Your task to perform on an android device: Show me popular games on the Play Store Image 0: 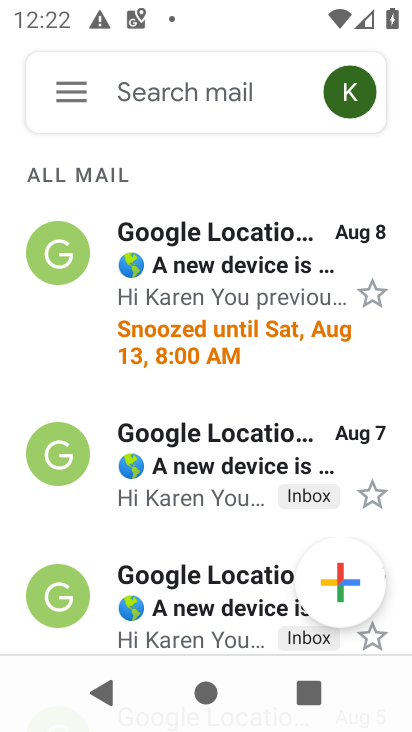
Step 0: press home button
Your task to perform on an android device: Show me popular games on the Play Store Image 1: 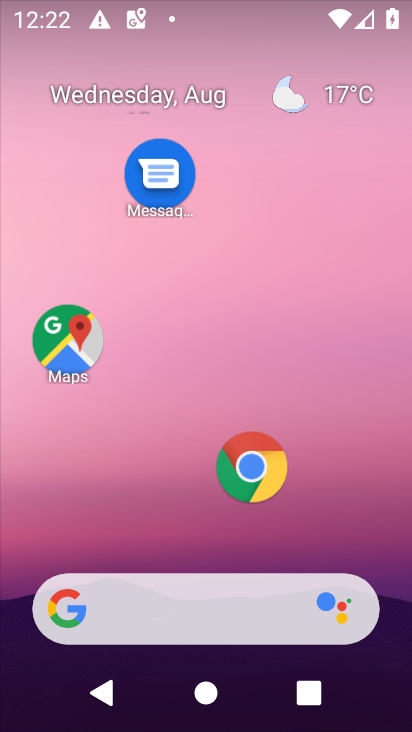
Step 1: drag from (203, 543) to (99, 26)
Your task to perform on an android device: Show me popular games on the Play Store Image 2: 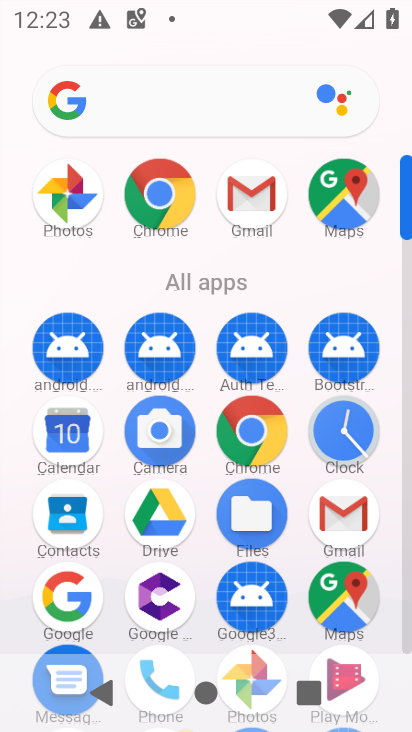
Step 2: drag from (196, 553) to (164, 228)
Your task to perform on an android device: Show me popular games on the Play Store Image 3: 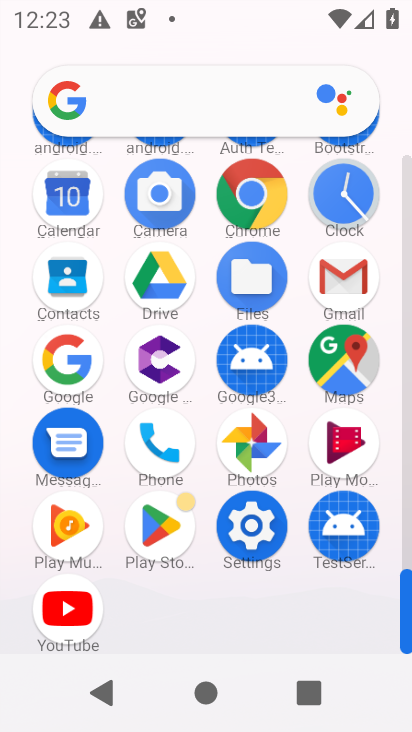
Step 3: click (128, 511)
Your task to perform on an android device: Show me popular games on the Play Store Image 4: 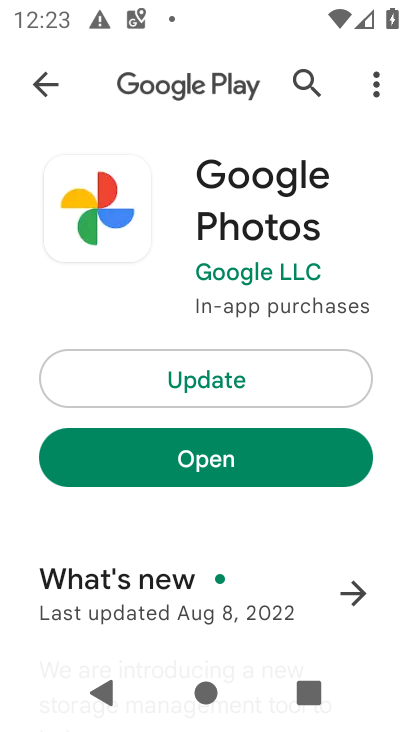
Step 4: click (30, 75)
Your task to perform on an android device: Show me popular games on the Play Store Image 5: 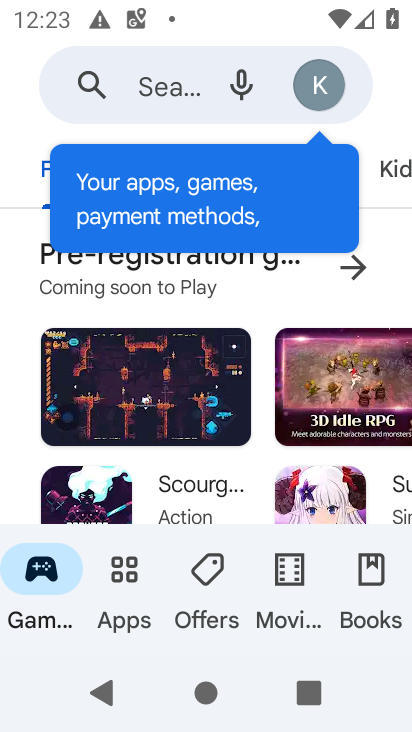
Step 5: click (34, 148)
Your task to perform on an android device: Show me popular games on the Play Store Image 6: 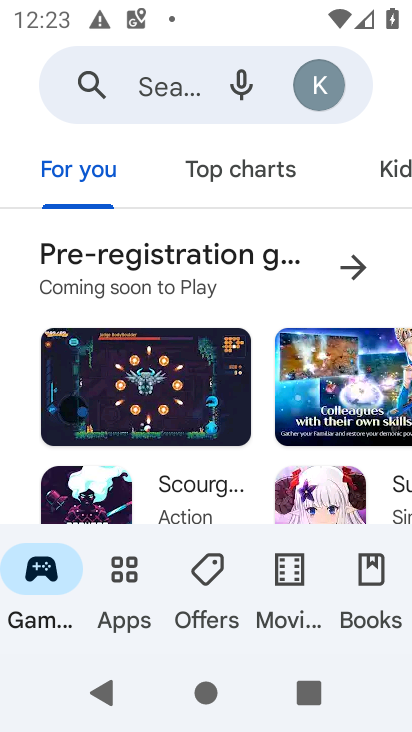
Step 6: click (189, 175)
Your task to perform on an android device: Show me popular games on the Play Store Image 7: 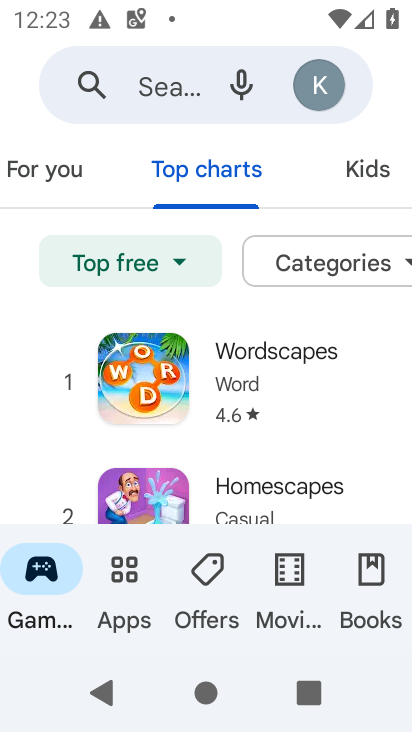
Step 7: task complete